Your task to perform on an android device: turn on location history Image 0: 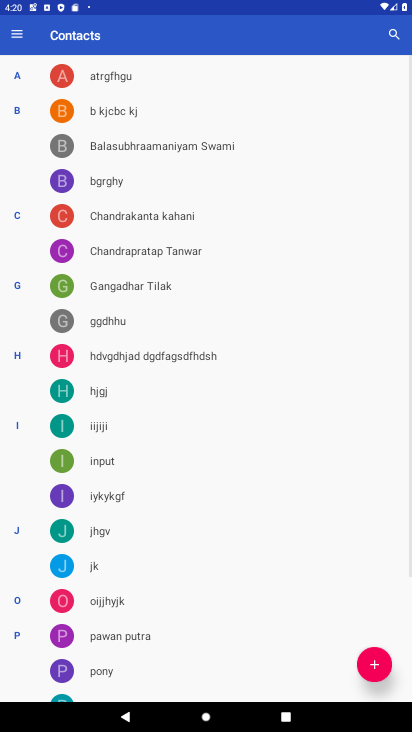
Step 0: press home button
Your task to perform on an android device: turn on location history Image 1: 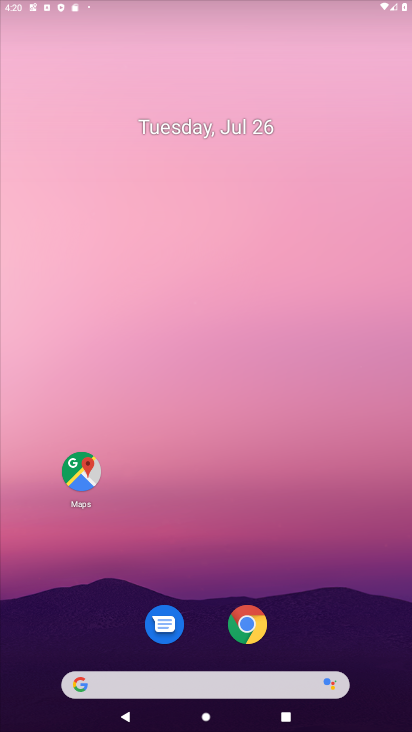
Step 1: drag from (272, 659) to (305, 34)
Your task to perform on an android device: turn on location history Image 2: 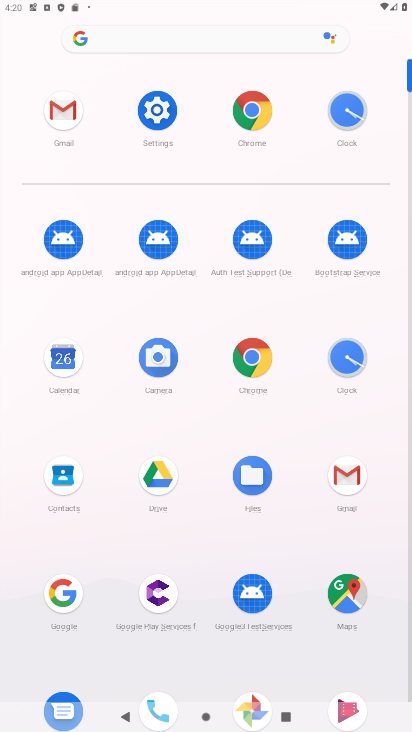
Step 2: click (154, 109)
Your task to perform on an android device: turn on location history Image 3: 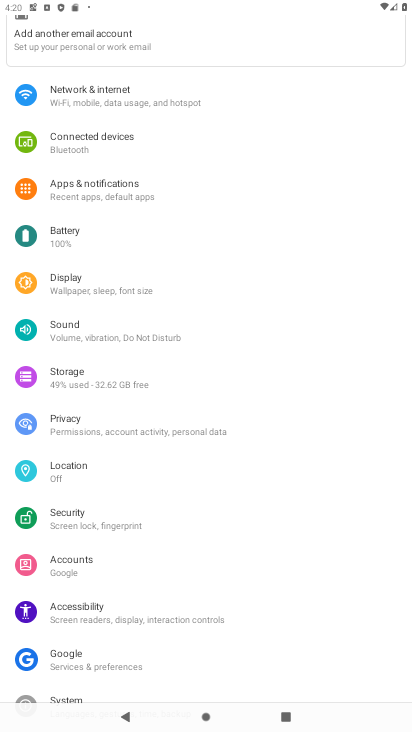
Step 3: click (75, 478)
Your task to perform on an android device: turn on location history Image 4: 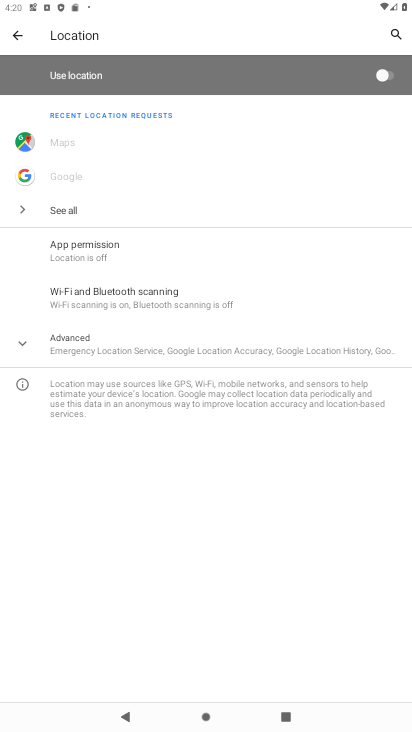
Step 4: click (160, 348)
Your task to perform on an android device: turn on location history Image 5: 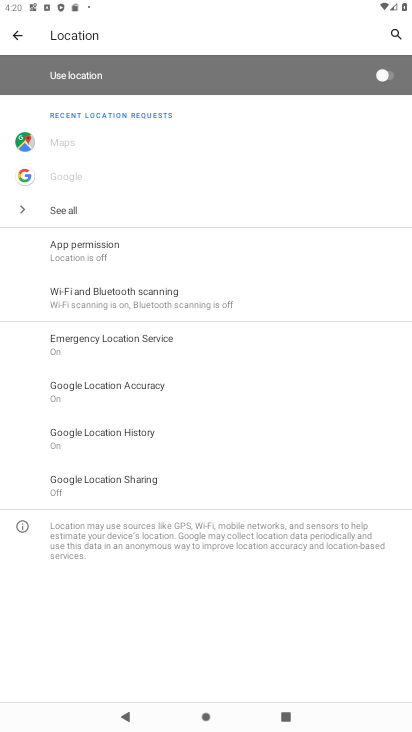
Step 5: click (173, 431)
Your task to perform on an android device: turn on location history Image 6: 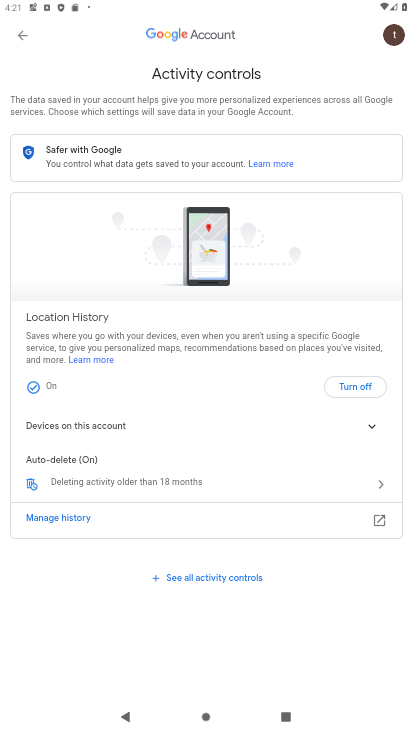
Step 6: task complete